Your task to perform on an android device: Do I have any events tomorrow? Image 0: 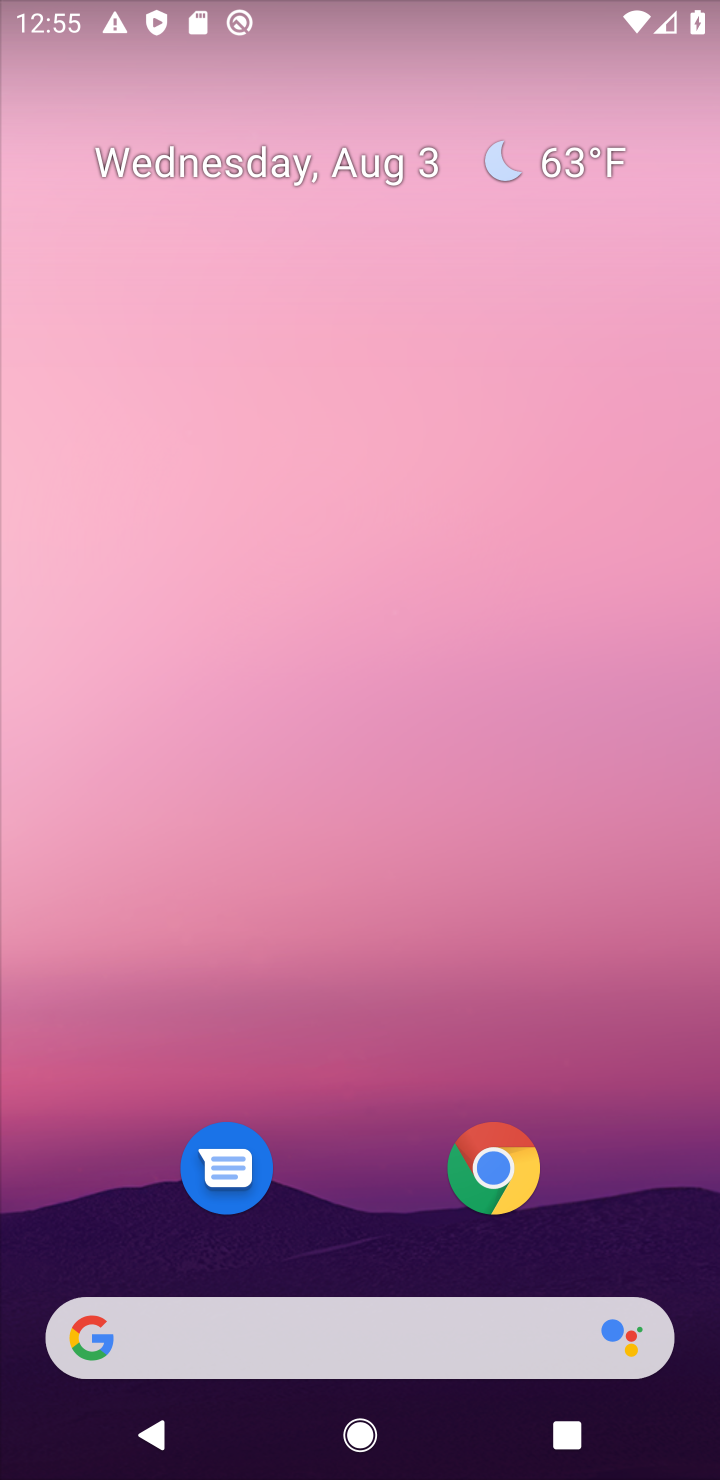
Step 0: press home button
Your task to perform on an android device: Do I have any events tomorrow? Image 1: 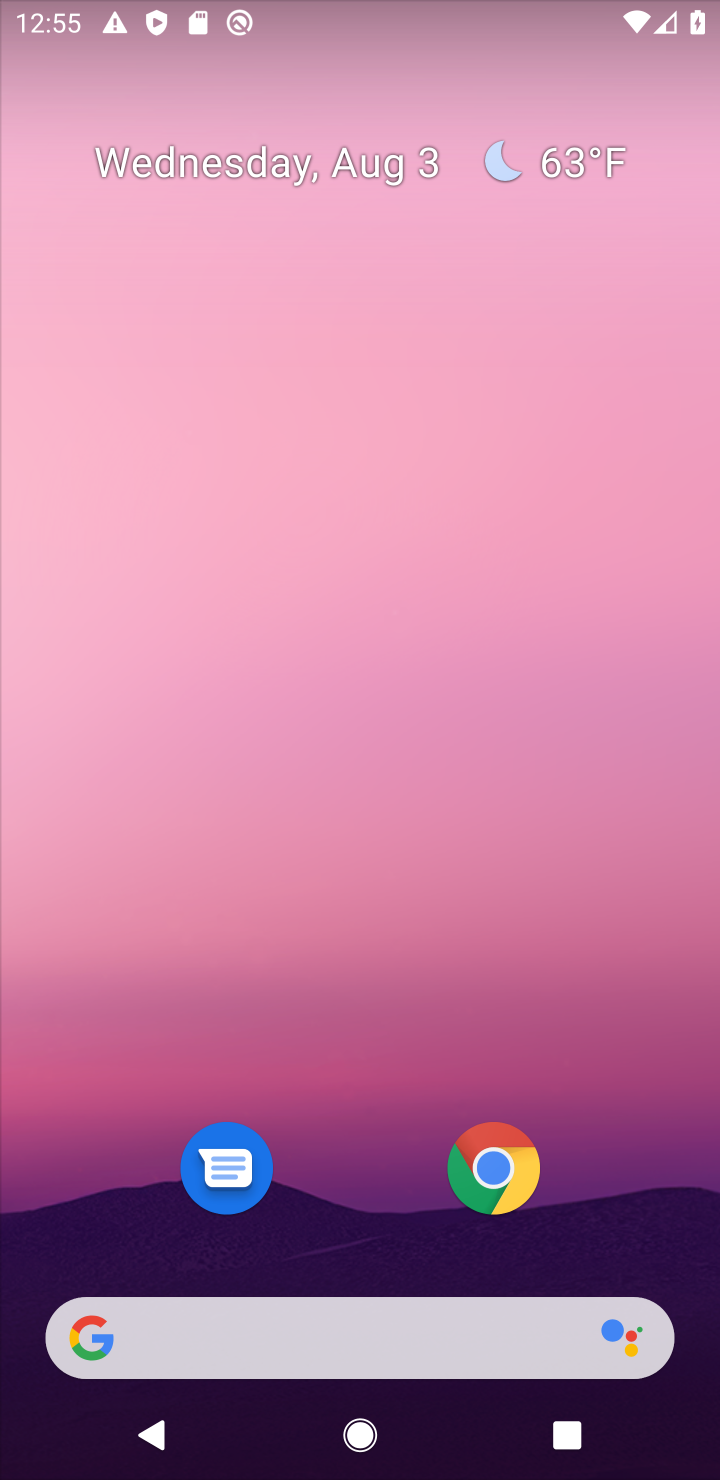
Step 1: drag from (363, 1021) to (363, 246)
Your task to perform on an android device: Do I have any events tomorrow? Image 2: 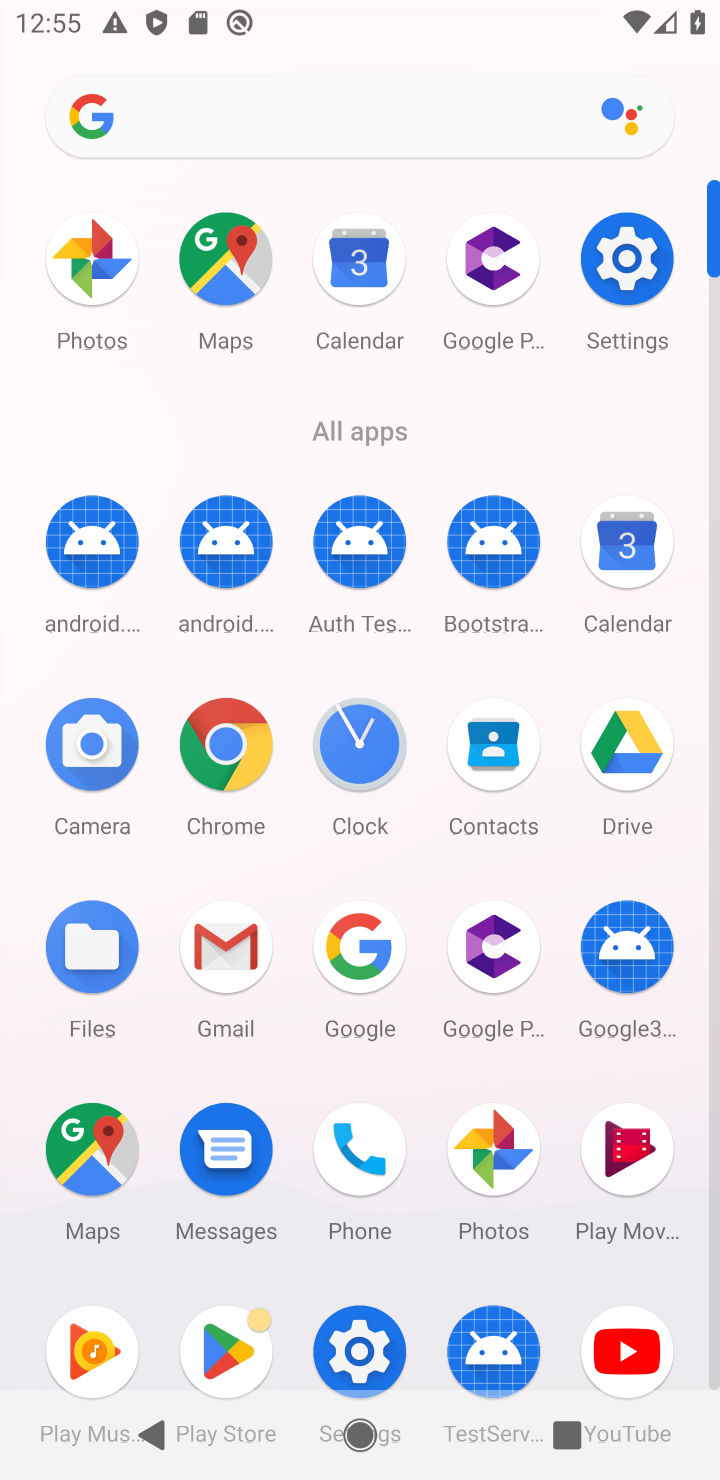
Step 2: click (589, 591)
Your task to perform on an android device: Do I have any events tomorrow? Image 3: 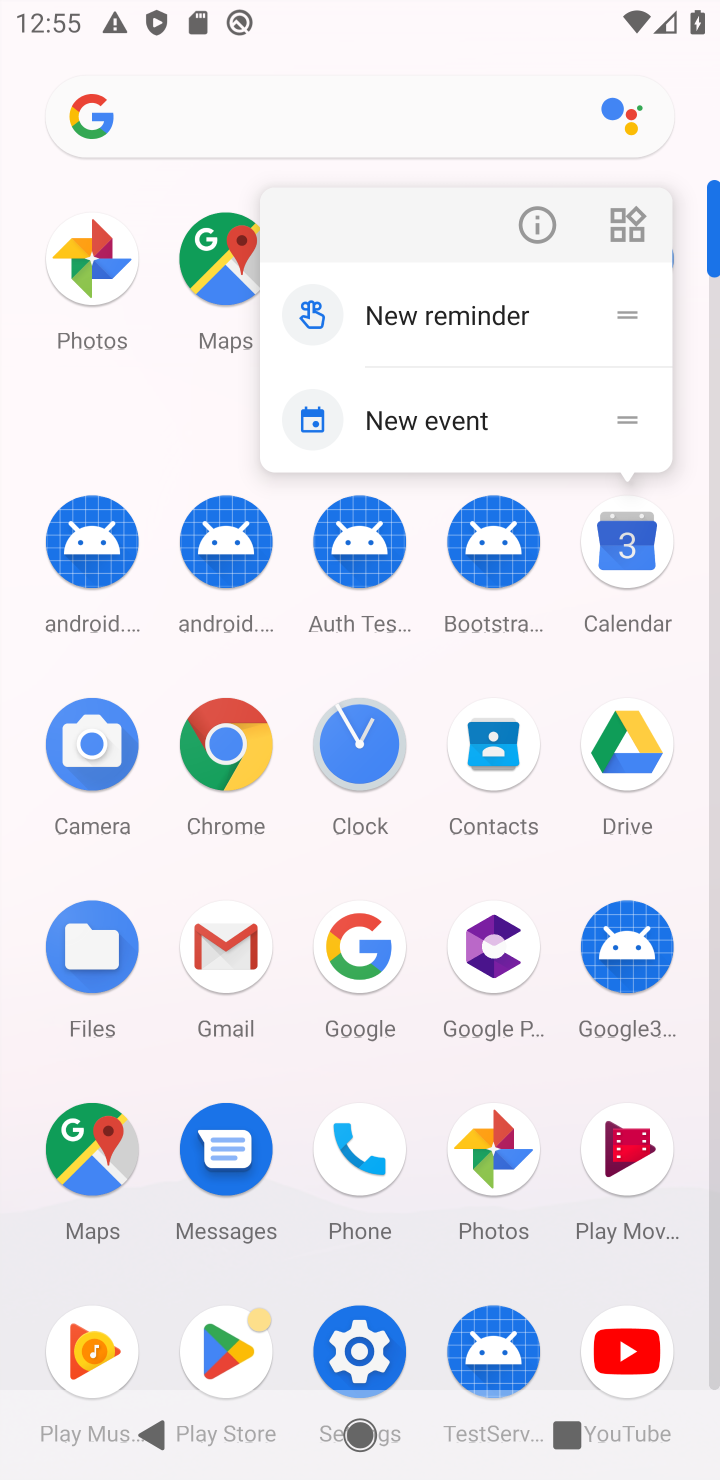
Step 3: click (589, 591)
Your task to perform on an android device: Do I have any events tomorrow? Image 4: 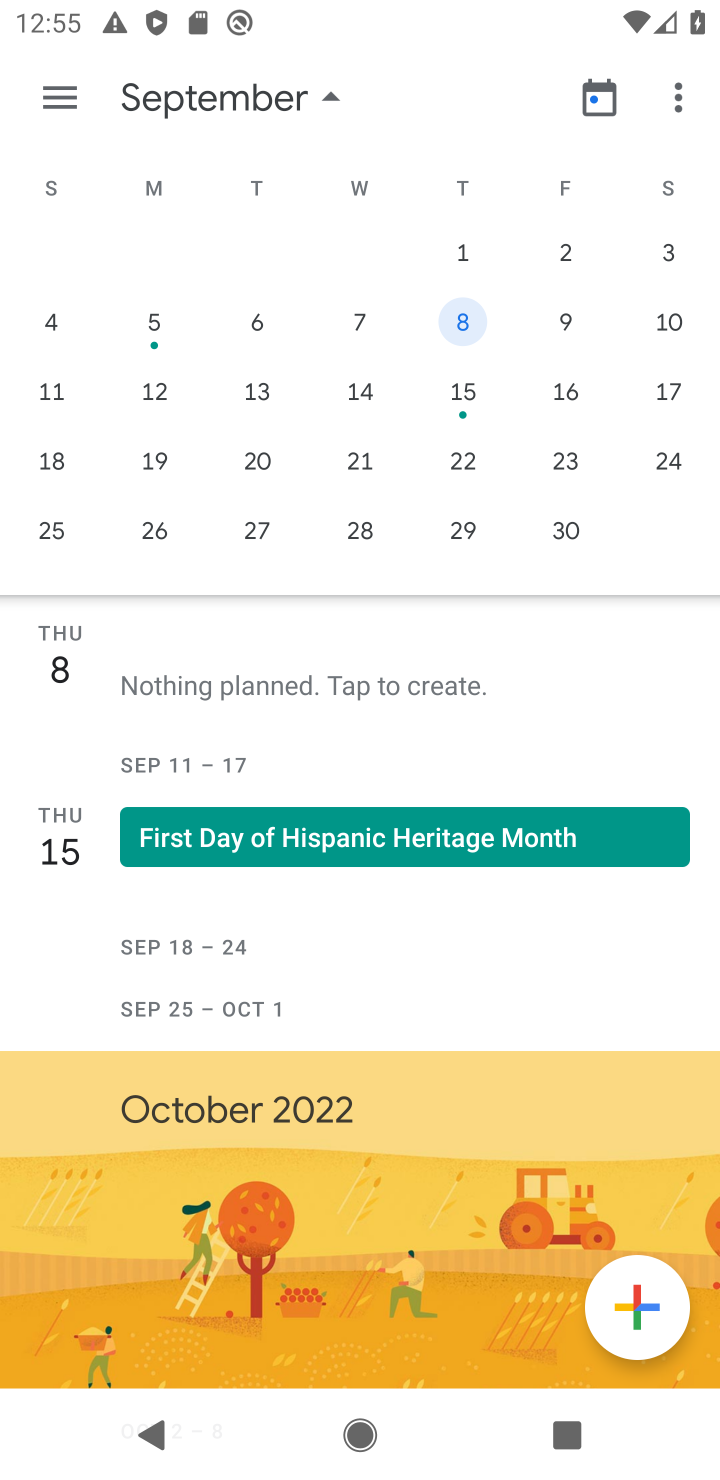
Step 4: drag from (58, 259) to (648, 267)
Your task to perform on an android device: Do I have any events tomorrow? Image 5: 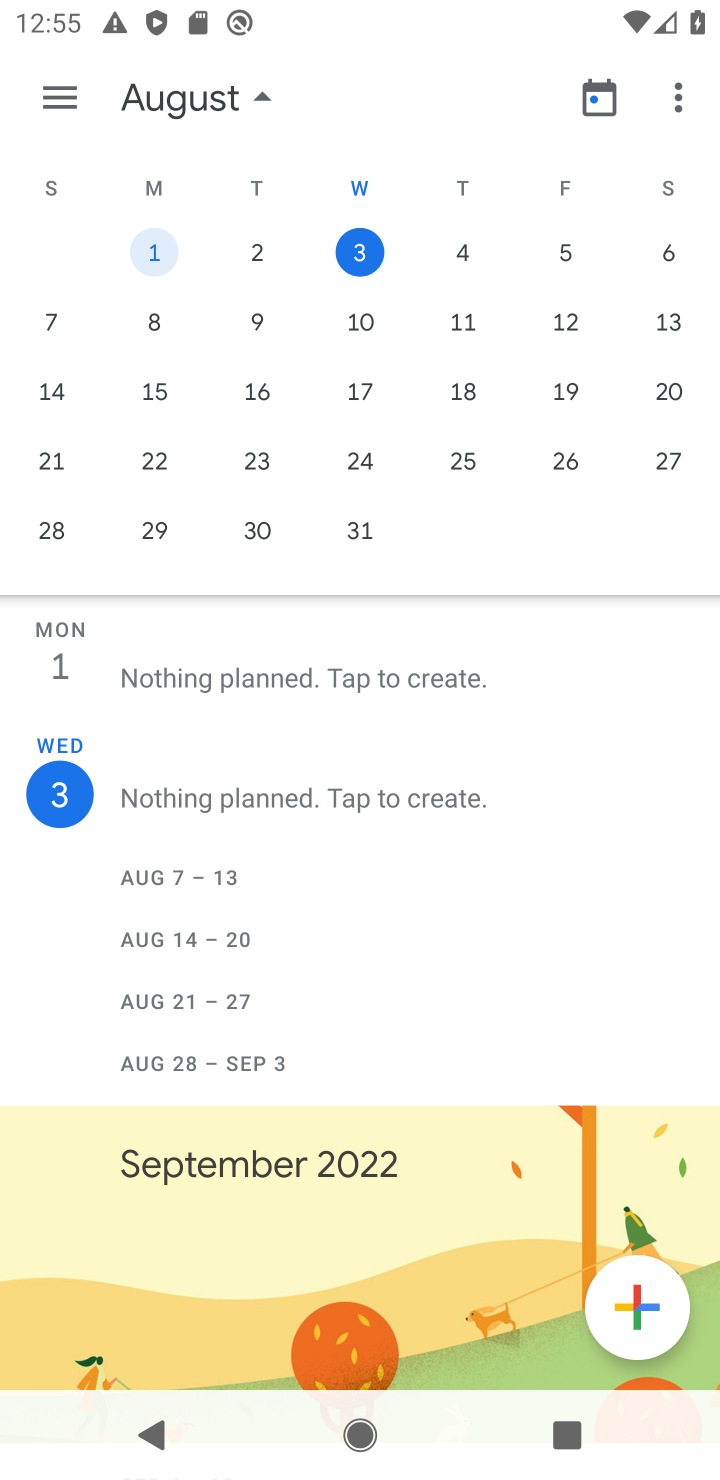
Step 5: click (472, 277)
Your task to perform on an android device: Do I have any events tomorrow? Image 6: 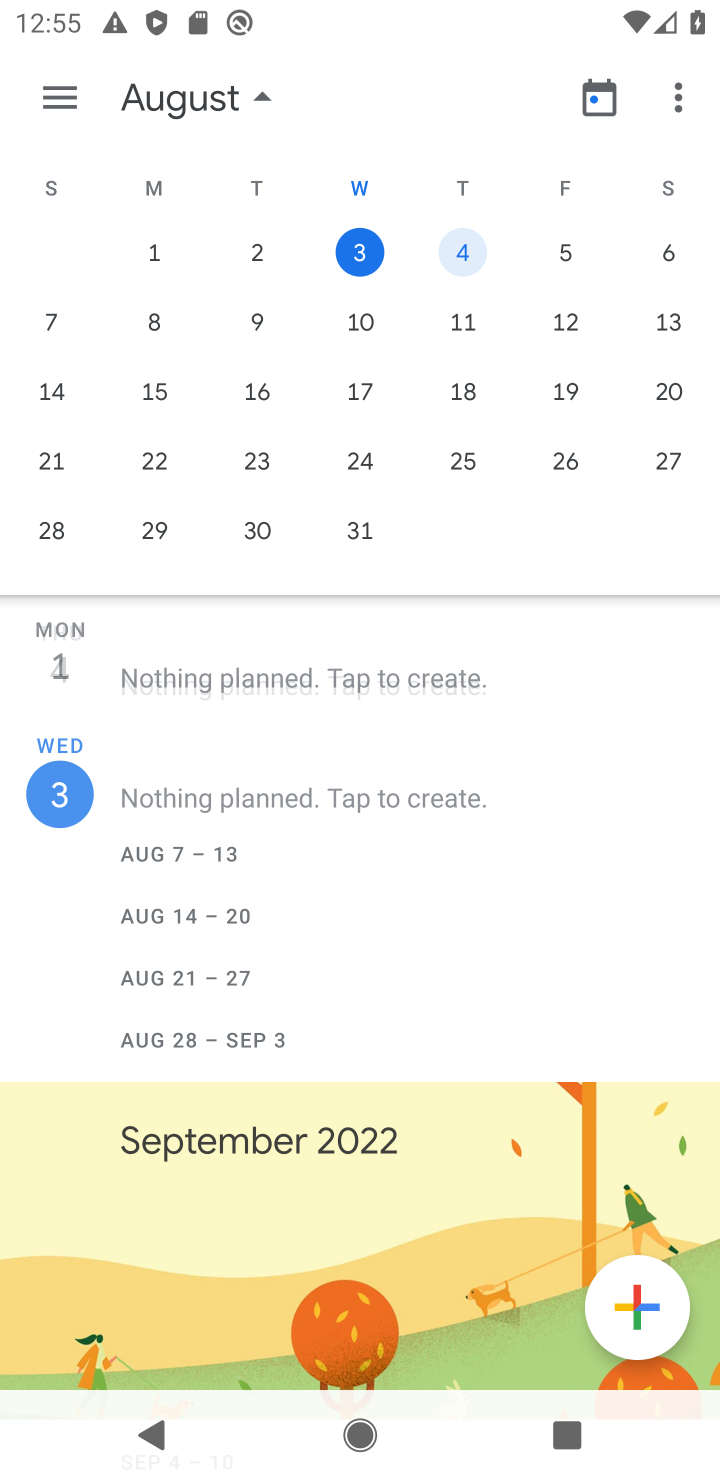
Step 6: task complete